Your task to perform on an android device: toggle wifi Image 0: 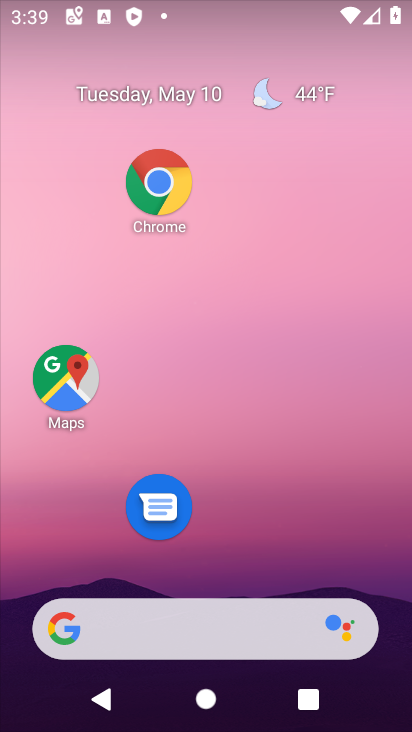
Step 0: drag from (251, 505) to (297, 114)
Your task to perform on an android device: toggle wifi Image 1: 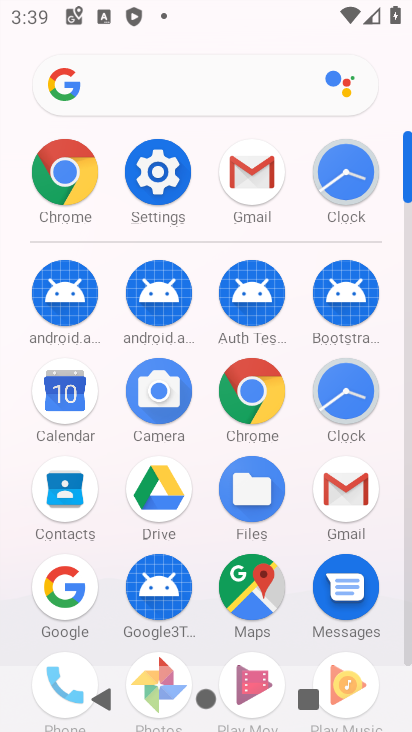
Step 1: click (180, 165)
Your task to perform on an android device: toggle wifi Image 2: 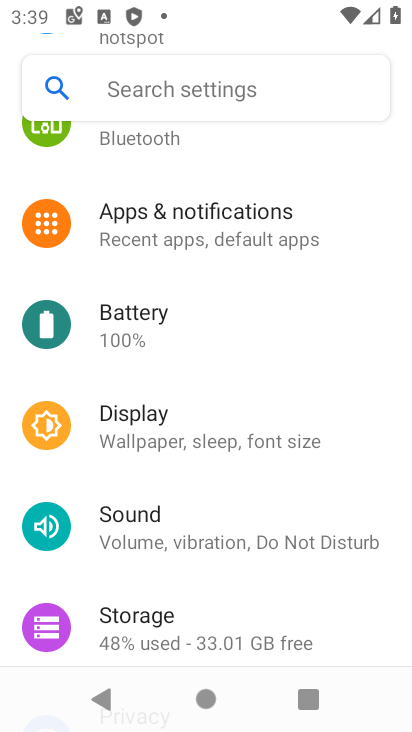
Step 2: drag from (256, 220) to (220, 676)
Your task to perform on an android device: toggle wifi Image 3: 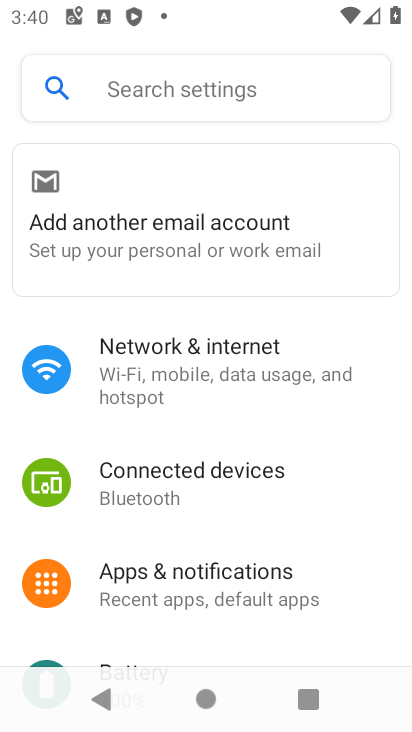
Step 3: click (211, 362)
Your task to perform on an android device: toggle wifi Image 4: 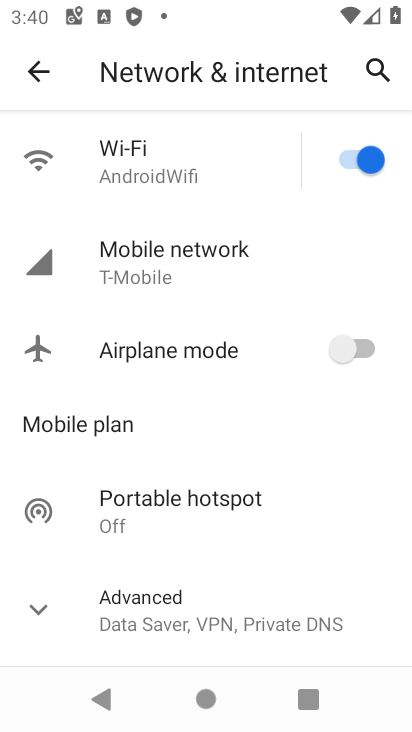
Step 4: click (343, 149)
Your task to perform on an android device: toggle wifi Image 5: 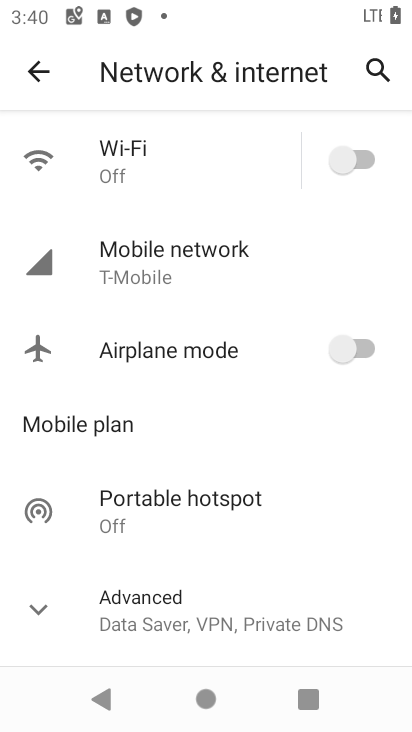
Step 5: task complete